Your task to perform on an android device: turn off location Image 0: 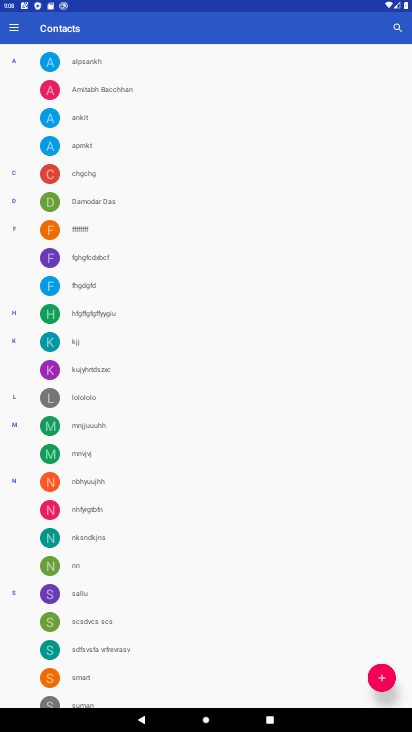
Step 0: press home button
Your task to perform on an android device: turn off location Image 1: 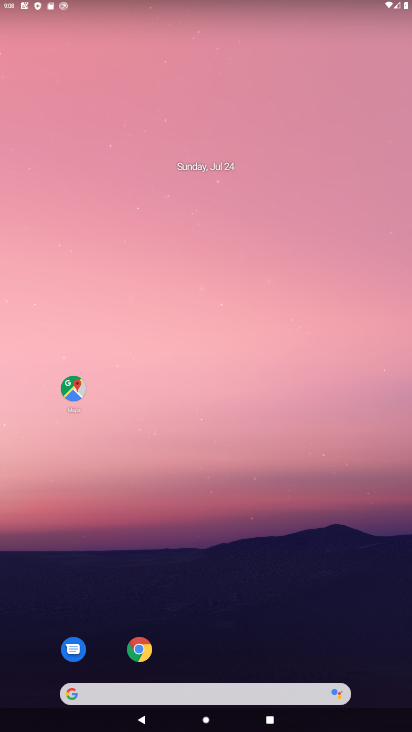
Step 1: drag from (374, 670) to (357, 141)
Your task to perform on an android device: turn off location Image 2: 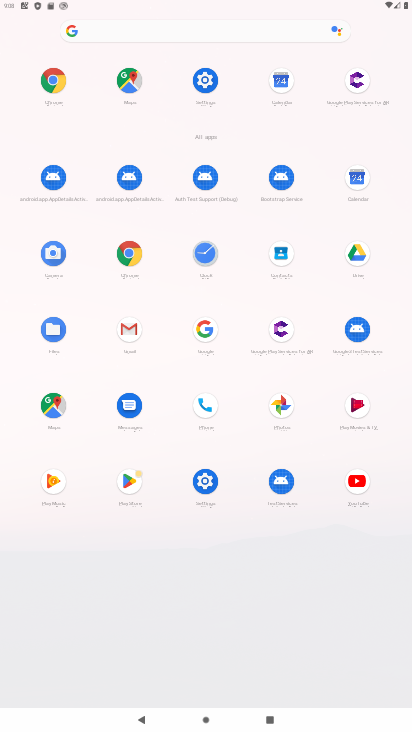
Step 2: click (207, 477)
Your task to perform on an android device: turn off location Image 3: 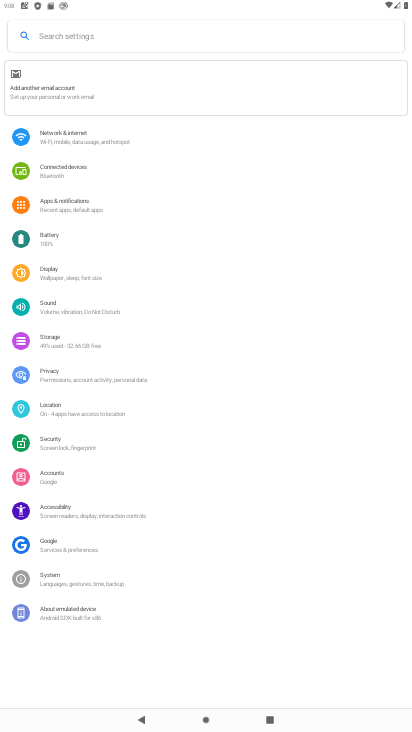
Step 3: click (124, 407)
Your task to perform on an android device: turn off location Image 4: 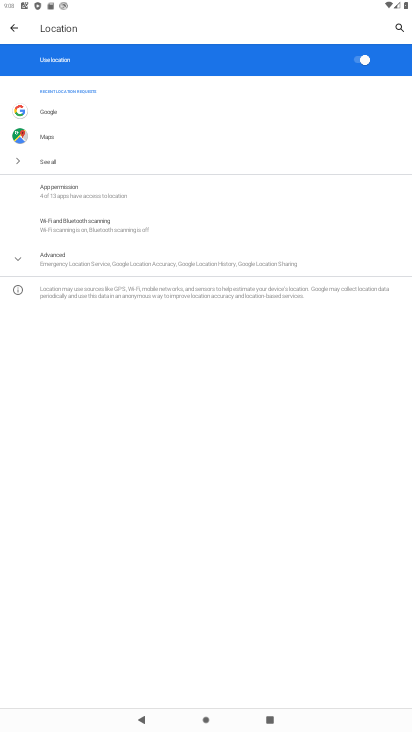
Step 4: click (360, 61)
Your task to perform on an android device: turn off location Image 5: 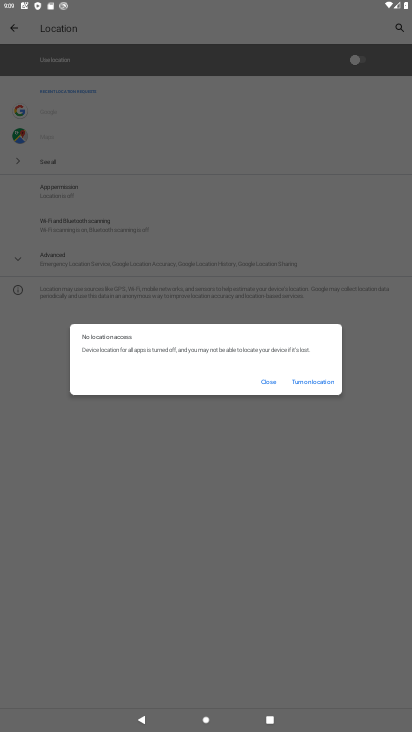
Step 5: task complete